Your task to perform on an android device: Open my contact list Image 0: 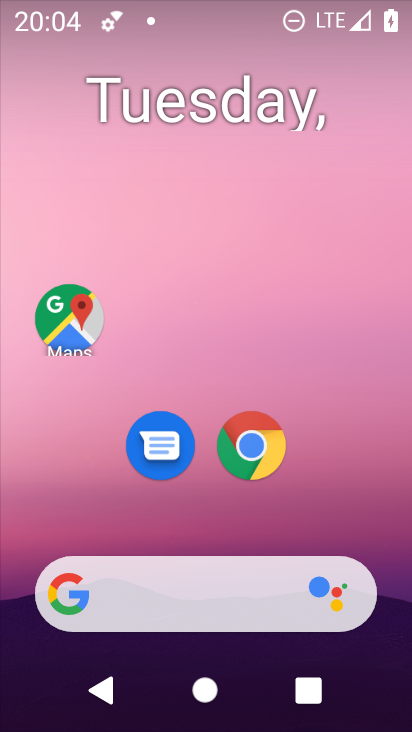
Step 0: drag from (287, 515) to (249, 15)
Your task to perform on an android device: Open my contact list Image 1: 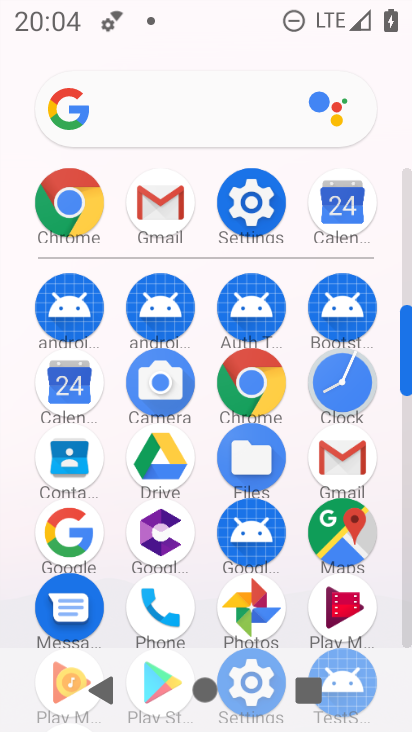
Step 1: click (45, 468)
Your task to perform on an android device: Open my contact list Image 2: 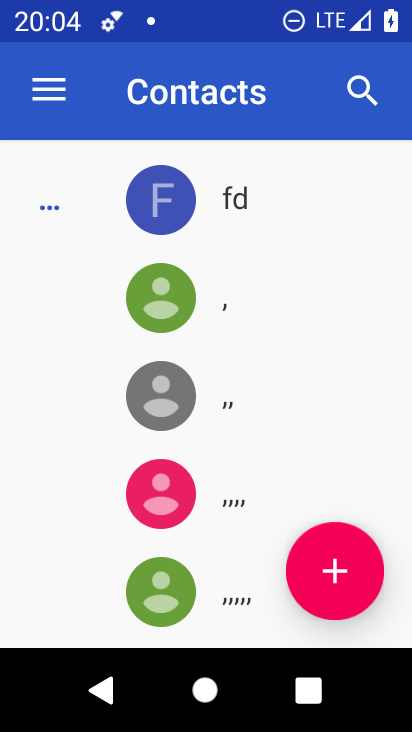
Step 2: task complete